Your task to perform on an android device: Go to calendar. Show me events next week Image 0: 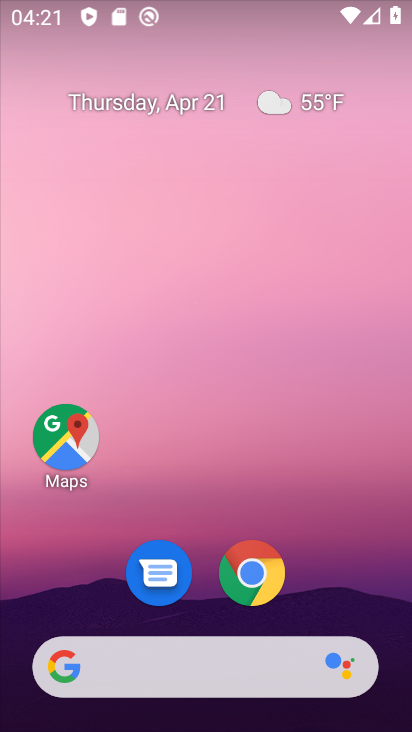
Step 0: drag from (333, 587) to (242, 17)
Your task to perform on an android device: Go to calendar. Show me events next week Image 1: 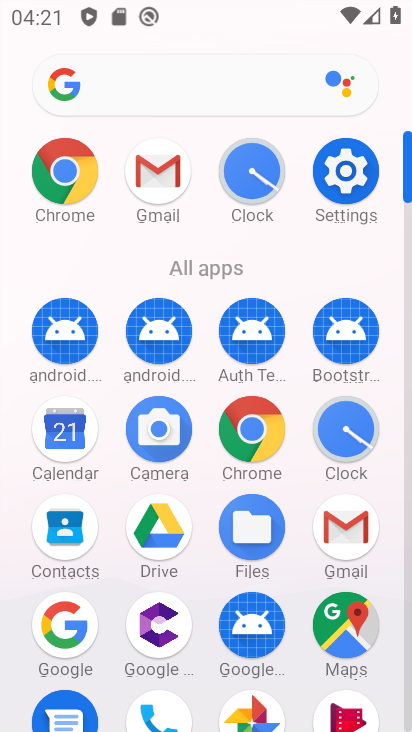
Step 1: click (75, 447)
Your task to perform on an android device: Go to calendar. Show me events next week Image 2: 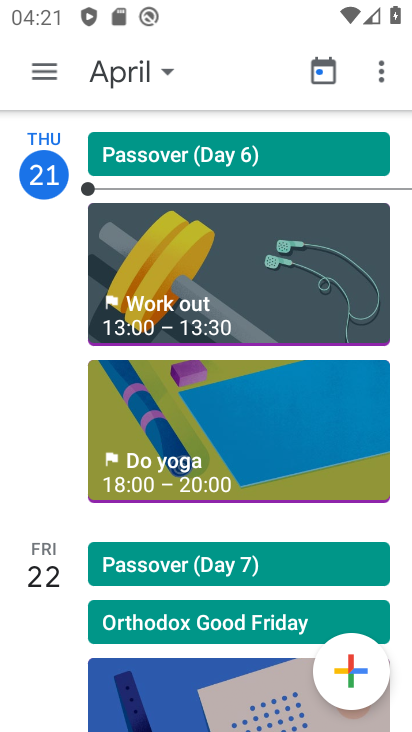
Step 2: click (158, 72)
Your task to perform on an android device: Go to calendar. Show me events next week Image 3: 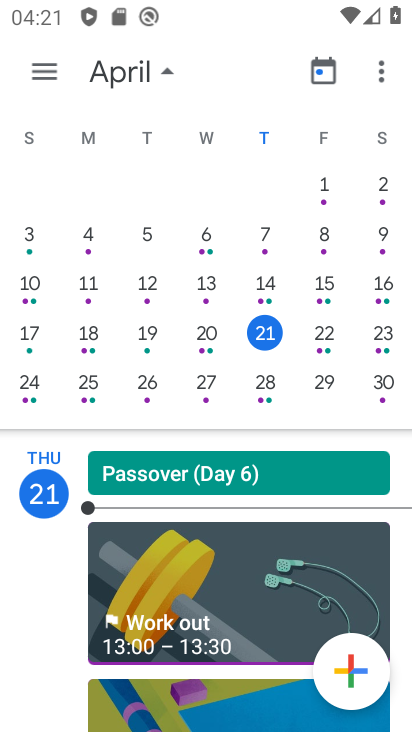
Step 3: click (204, 386)
Your task to perform on an android device: Go to calendar. Show me events next week Image 4: 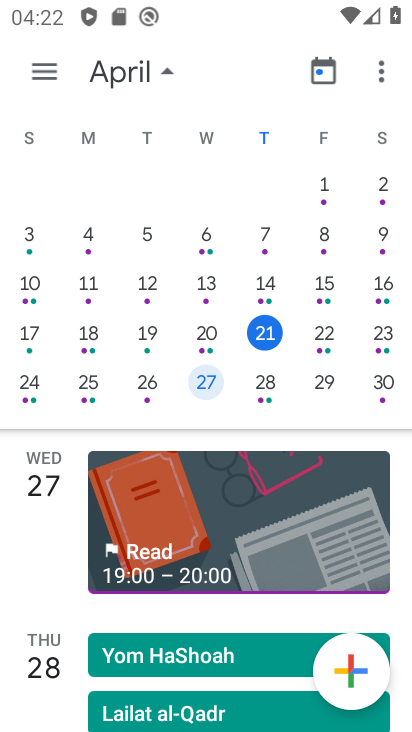
Step 4: task complete